Your task to perform on an android device: Go to sound settings Image 0: 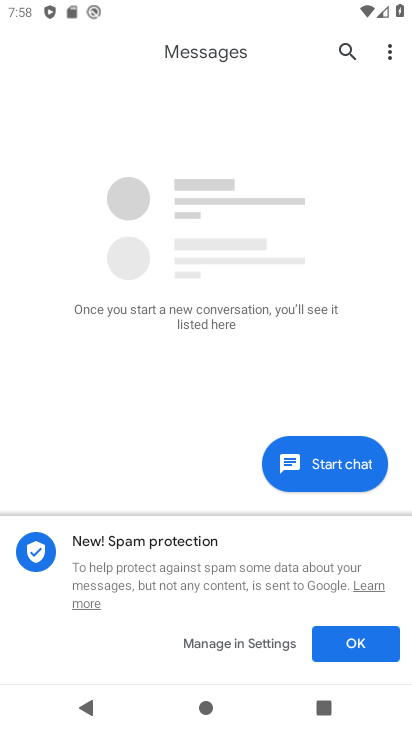
Step 0: press home button
Your task to perform on an android device: Go to sound settings Image 1: 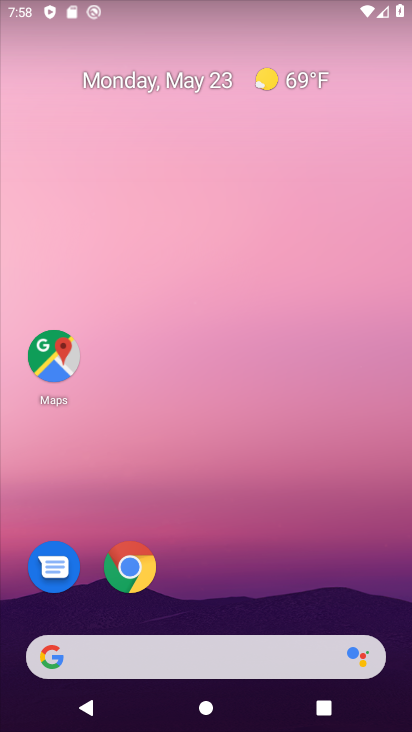
Step 1: drag from (246, 581) to (214, 3)
Your task to perform on an android device: Go to sound settings Image 2: 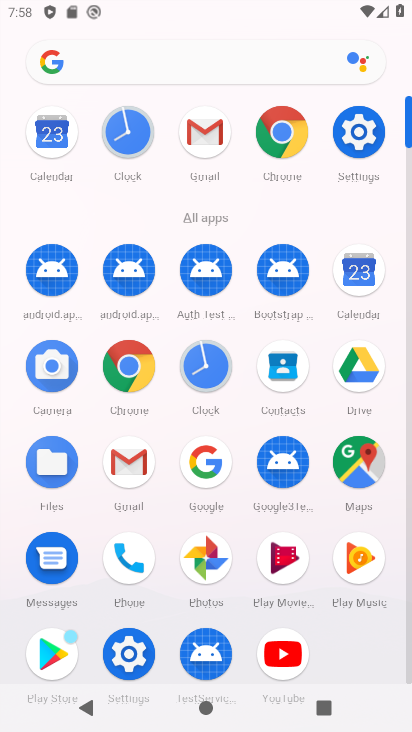
Step 2: click (134, 648)
Your task to perform on an android device: Go to sound settings Image 3: 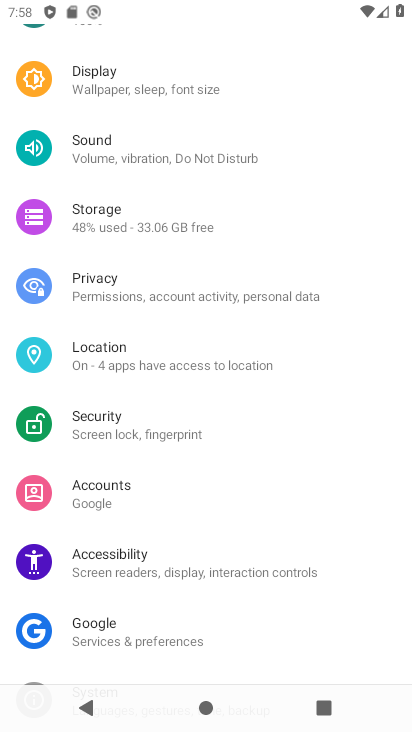
Step 3: click (142, 155)
Your task to perform on an android device: Go to sound settings Image 4: 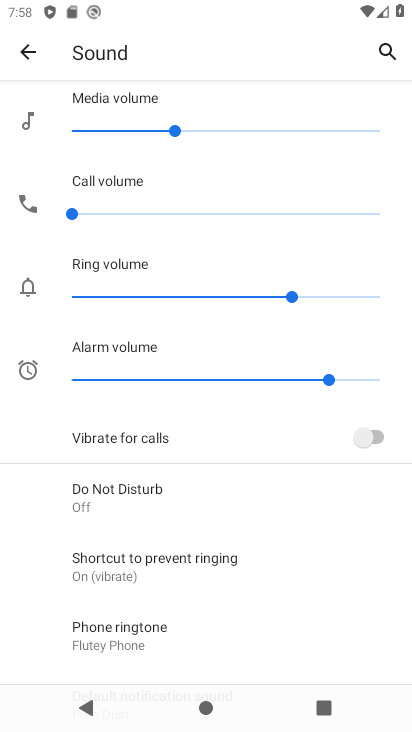
Step 4: task complete